Your task to perform on an android device: Clear the shopping cart on newegg.com. Search for "lg ultragear" on newegg.com, select the first entry, and add it to the cart. Image 0: 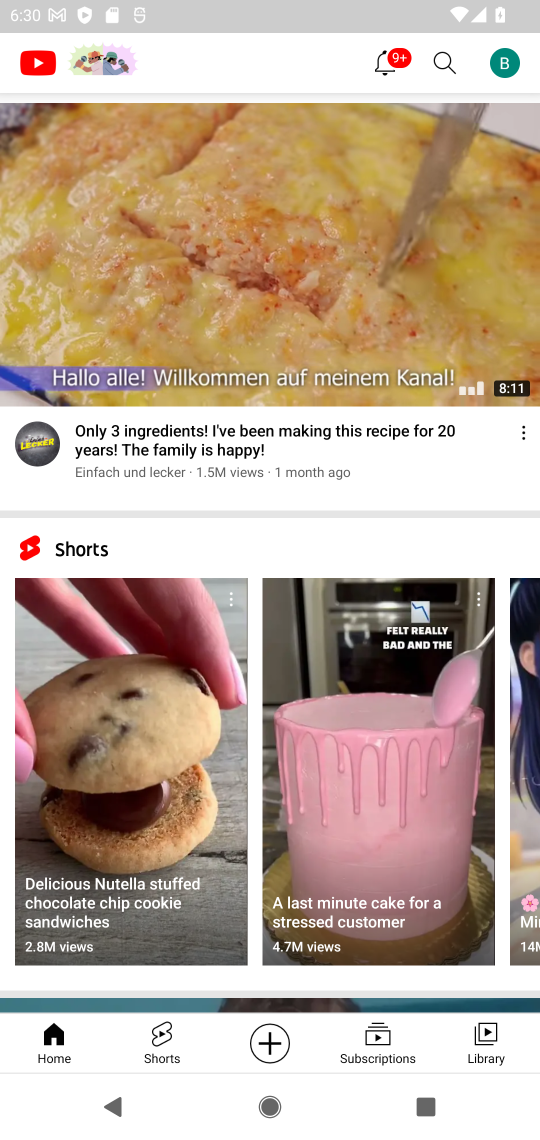
Step 0: press home button
Your task to perform on an android device: Clear the shopping cart on newegg.com. Search for "lg ultragear" on newegg.com, select the first entry, and add it to the cart. Image 1: 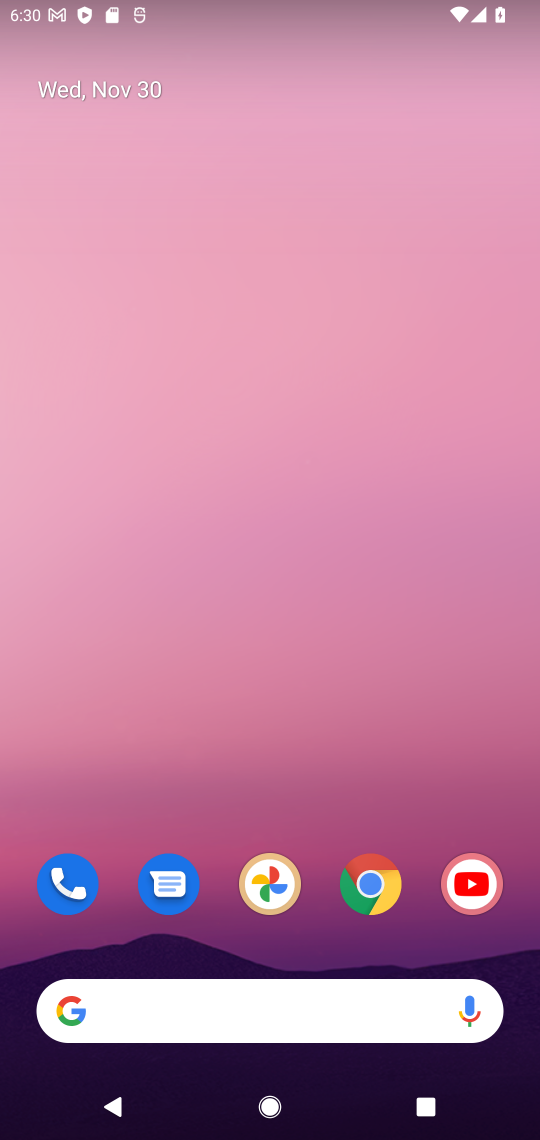
Step 1: click (372, 882)
Your task to perform on an android device: Clear the shopping cart on newegg.com. Search for "lg ultragear" on newegg.com, select the first entry, and add it to the cart. Image 2: 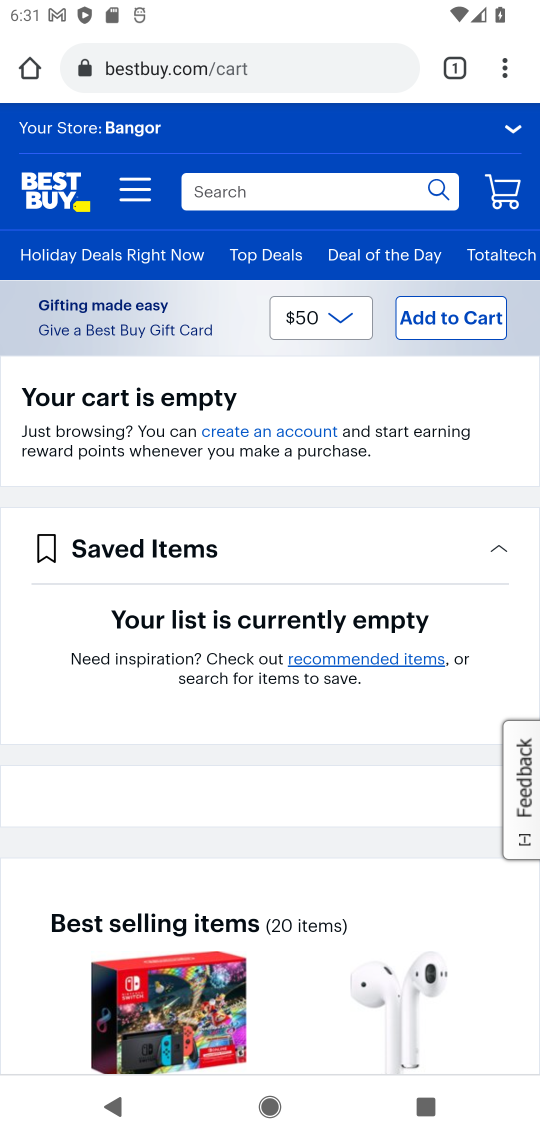
Step 2: click (200, 69)
Your task to perform on an android device: Clear the shopping cart on newegg.com. Search for "lg ultragear" on newegg.com, select the first entry, and add it to the cart. Image 3: 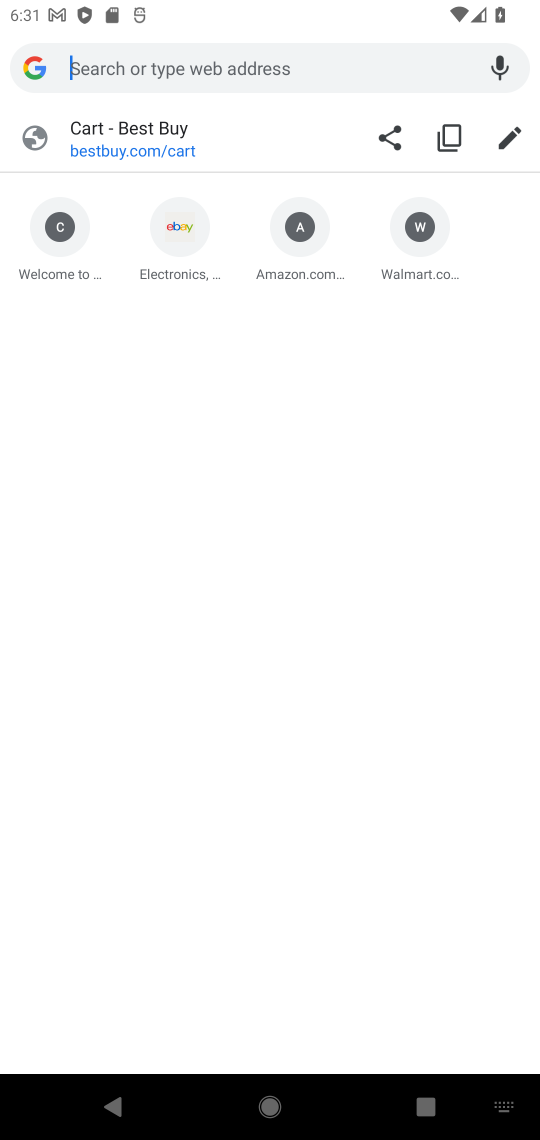
Step 3: type "newegg.com"
Your task to perform on an android device: Clear the shopping cart on newegg.com. Search for "lg ultragear" on newegg.com, select the first entry, and add it to the cart. Image 4: 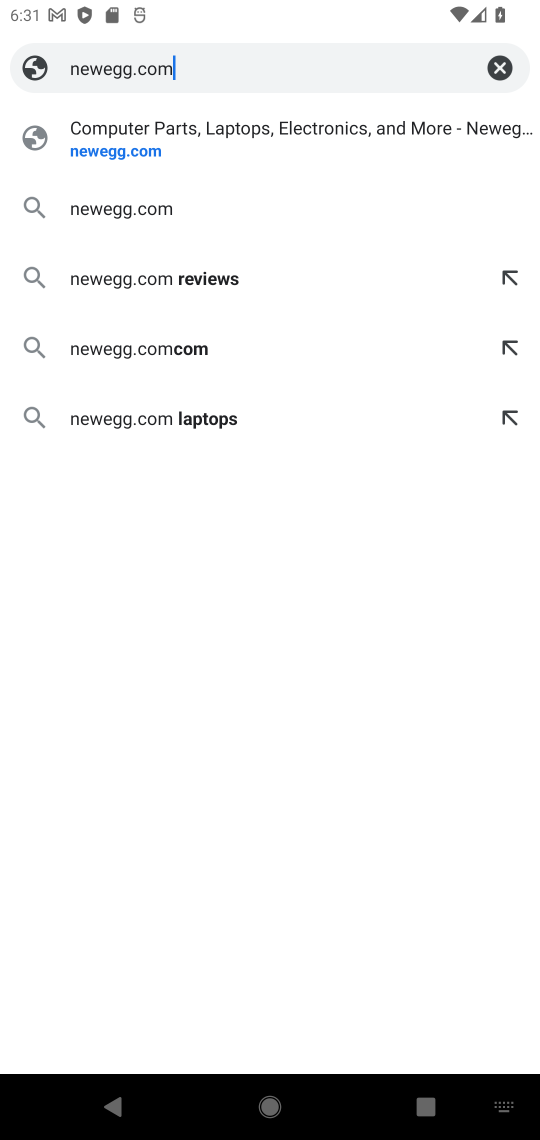
Step 4: click (130, 153)
Your task to perform on an android device: Clear the shopping cart on newegg.com. Search for "lg ultragear" on newegg.com, select the first entry, and add it to the cart. Image 5: 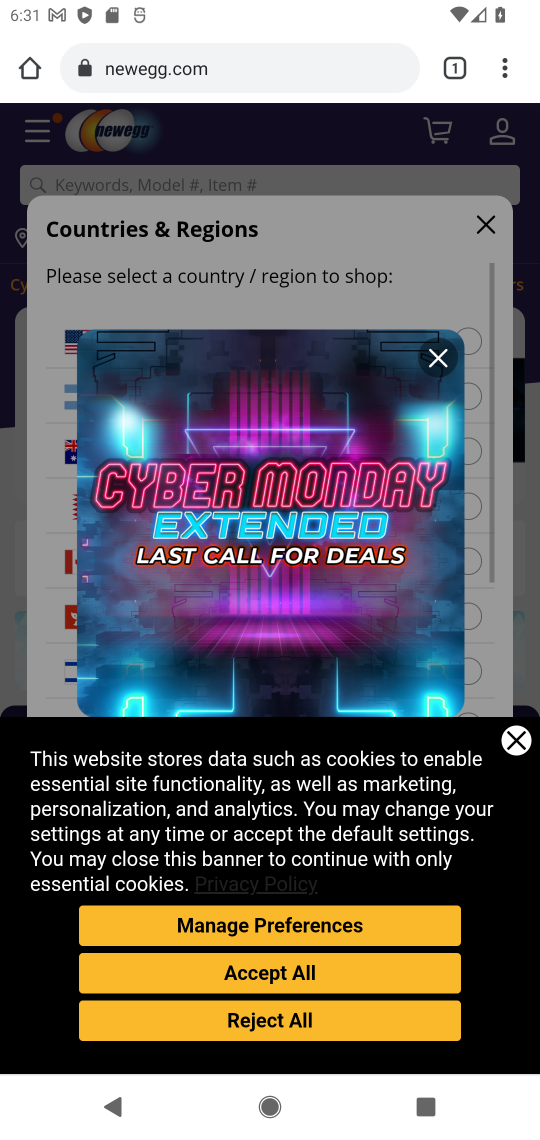
Step 5: click (523, 738)
Your task to perform on an android device: Clear the shopping cart on newegg.com. Search for "lg ultragear" on newegg.com, select the first entry, and add it to the cart. Image 6: 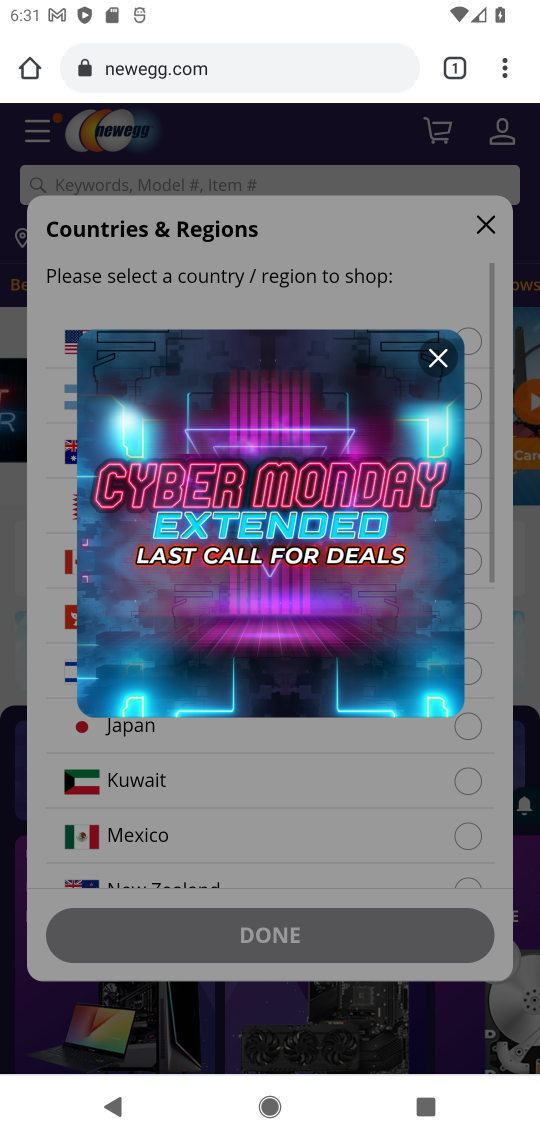
Step 6: click (446, 363)
Your task to perform on an android device: Clear the shopping cart on newegg.com. Search for "lg ultragear" on newegg.com, select the first entry, and add it to the cart. Image 7: 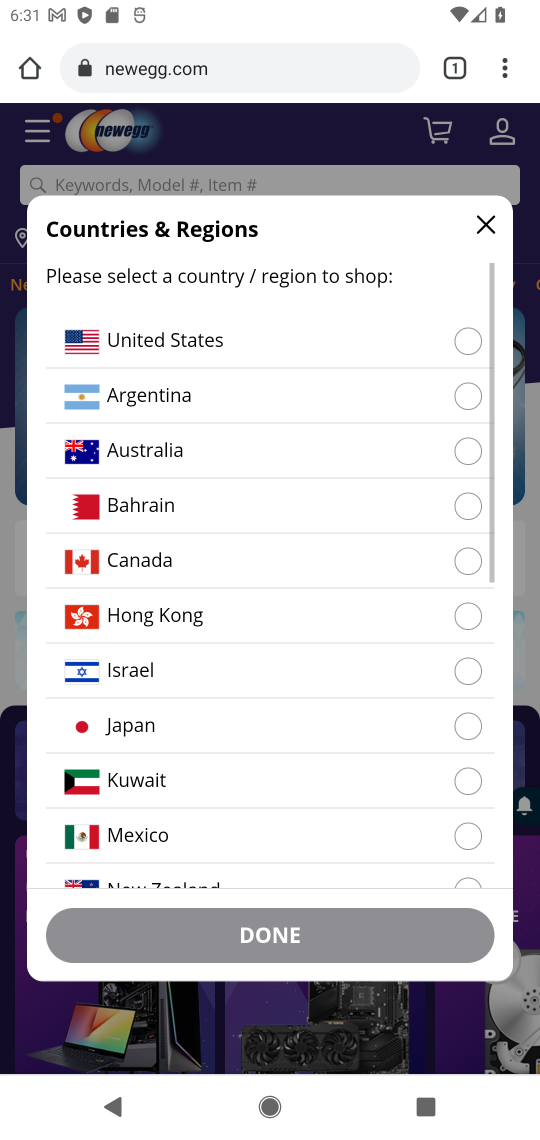
Step 7: click (272, 343)
Your task to perform on an android device: Clear the shopping cart on newegg.com. Search for "lg ultragear" on newegg.com, select the first entry, and add it to the cart. Image 8: 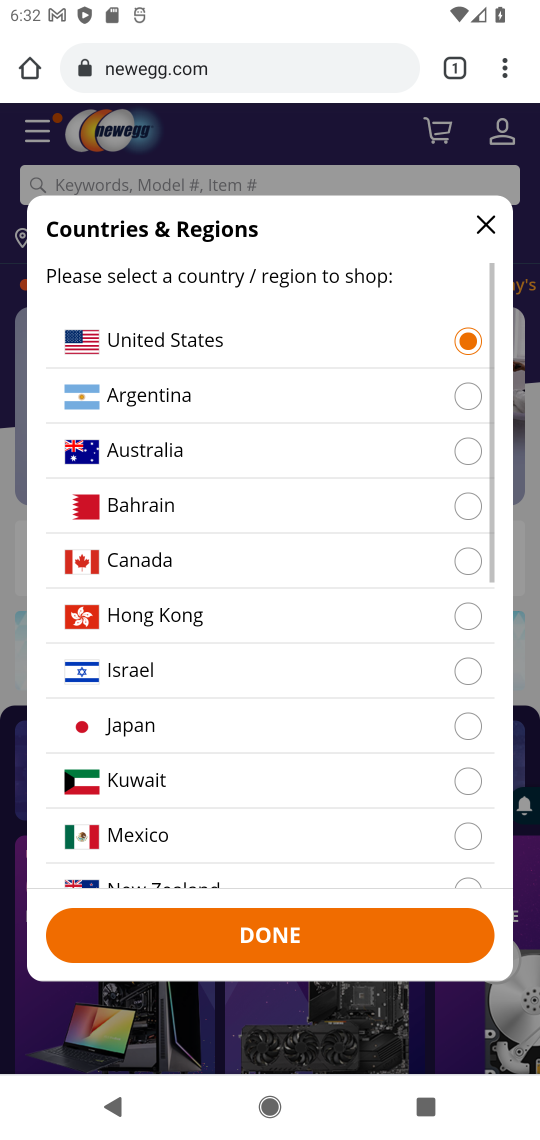
Step 8: click (250, 947)
Your task to perform on an android device: Clear the shopping cart on newegg.com. Search for "lg ultragear" on newegg.com, select the first entry, and add it to the cart. Image 9: 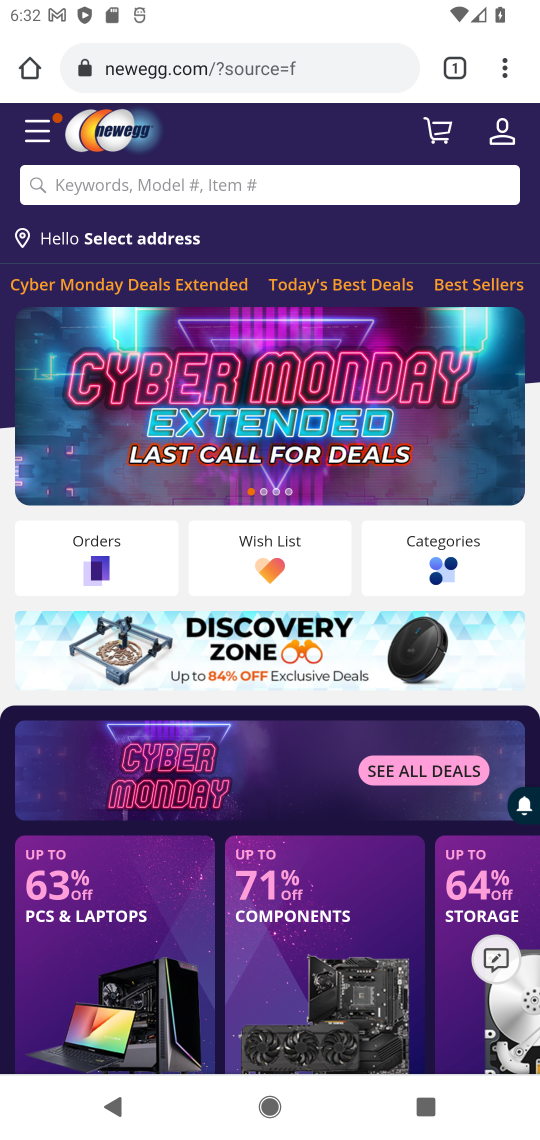
Step 9: click (434, 128)
Your task to perform on an android device: Clear the shopping cart on newegg.com. Search for "lg ultragear" on newegg.com, select the first entry, and add it to the cart. Image 10: 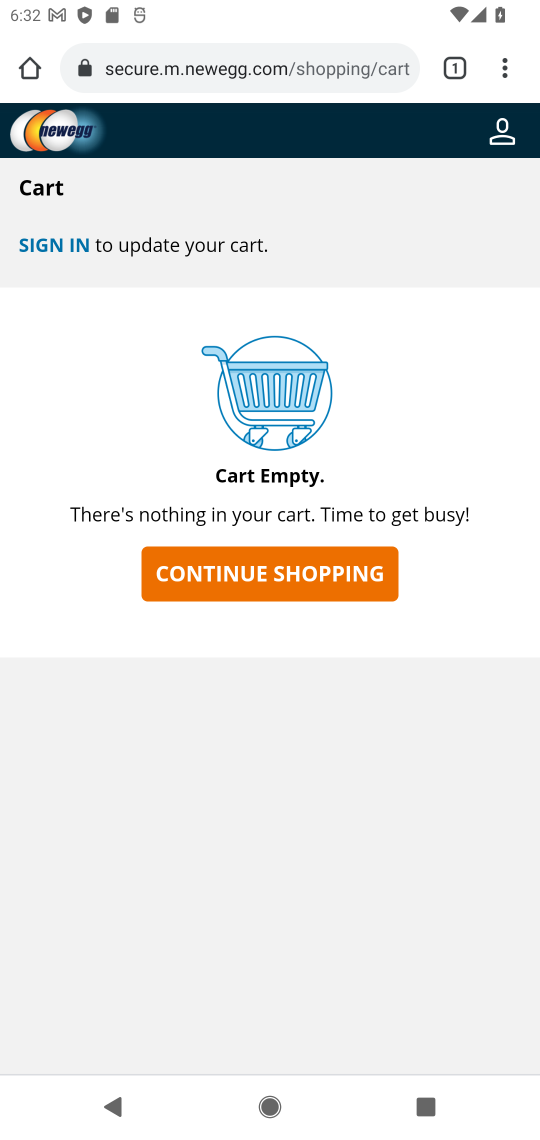
Step 10: click (222, 577)
Your task to perform on an android device: Clear the shopping cart on newegg.com. Search for "lg ultragear" on newegg.com, select the first entry, and add it to the cart. Image 11: 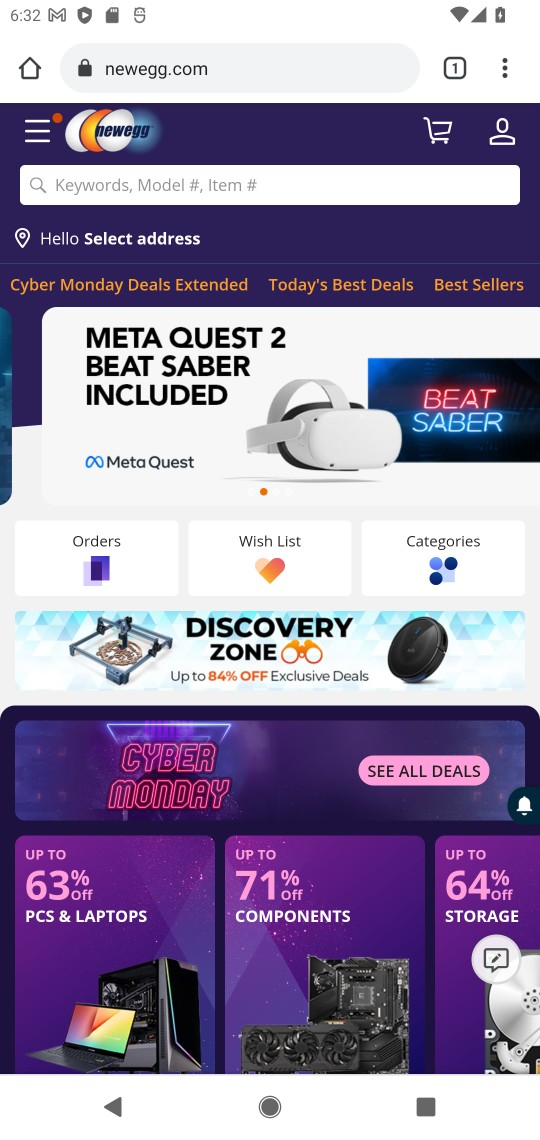
Step 11: click (134, 189)
Your task to perform on an android device: Clear the shopping cart on newegg.com. Search for "lg ultragear" on newegg.com, select the first entry, and add it to the cart. Image 12: 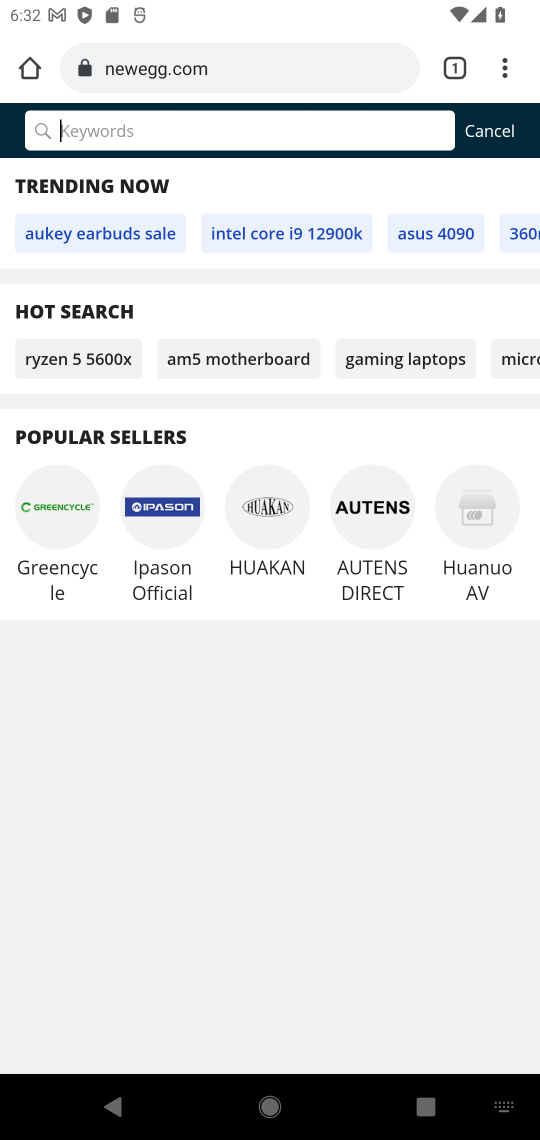
Step 12: type "lg ultragear"
Your task to perform on an android device: Clear the shopping cart on newegg.com. Search for "lg ultragear" on newegg.com, select the first entry, and add it to the cart. Image 13: 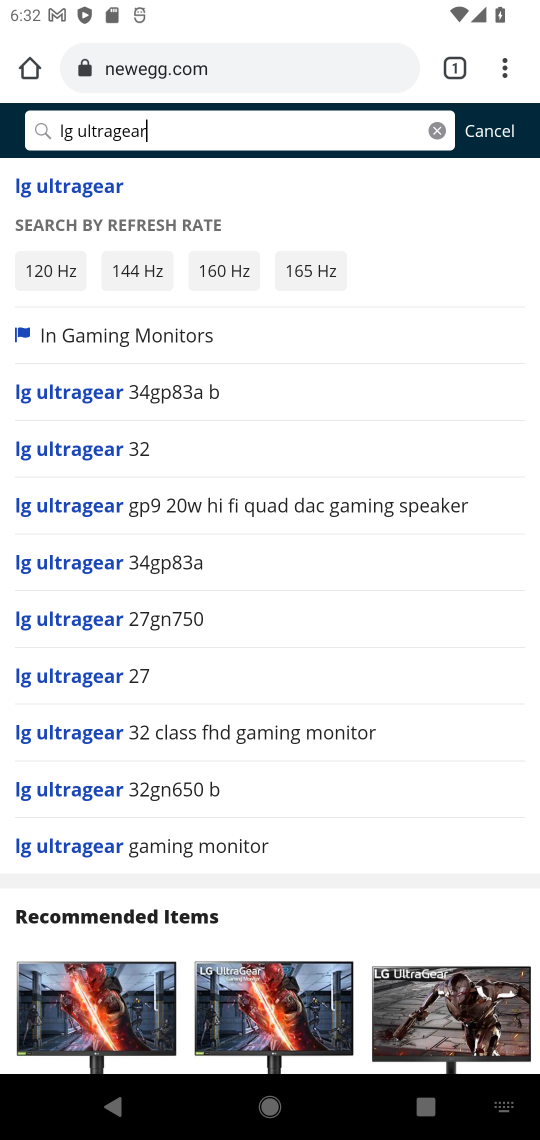
Step 13: click (67, 185)
Your task to perform on an android device: Clear the shopping cart on newegg.com. Search for "lg ultragear" on newegg.com, select the first entry, and add it to the cart. Image 14: 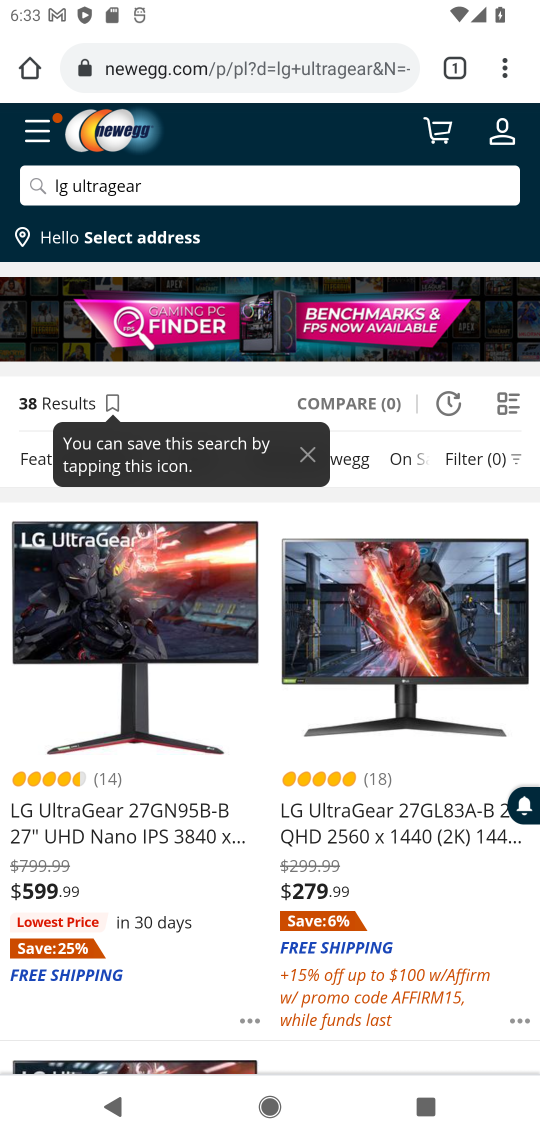
Step 14: click (85, 755)
Your task to perform on an android device: Clear the shopping cart on newegg.com. Search for "lg ultragear" on newegg.com, select the first entry, and add it to the cart. Image 15: 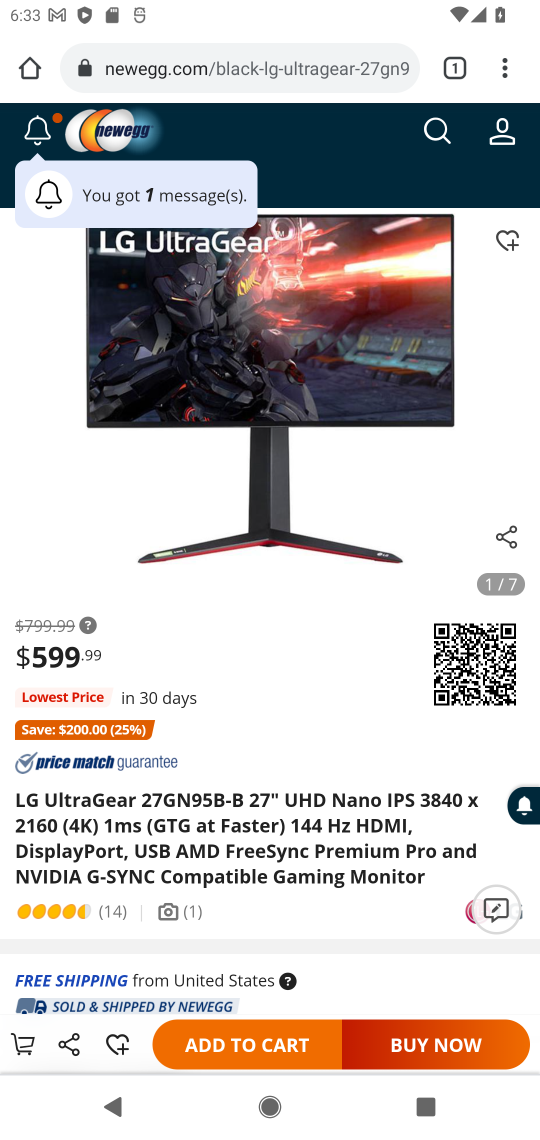
Step 15: click (241, 1043)
Your task to perform on an android device: Clear the shopping cart on newegg.com. Search for "lg ultragear" on newegg.com, select the first entry, and add it to the cart. Image 16: 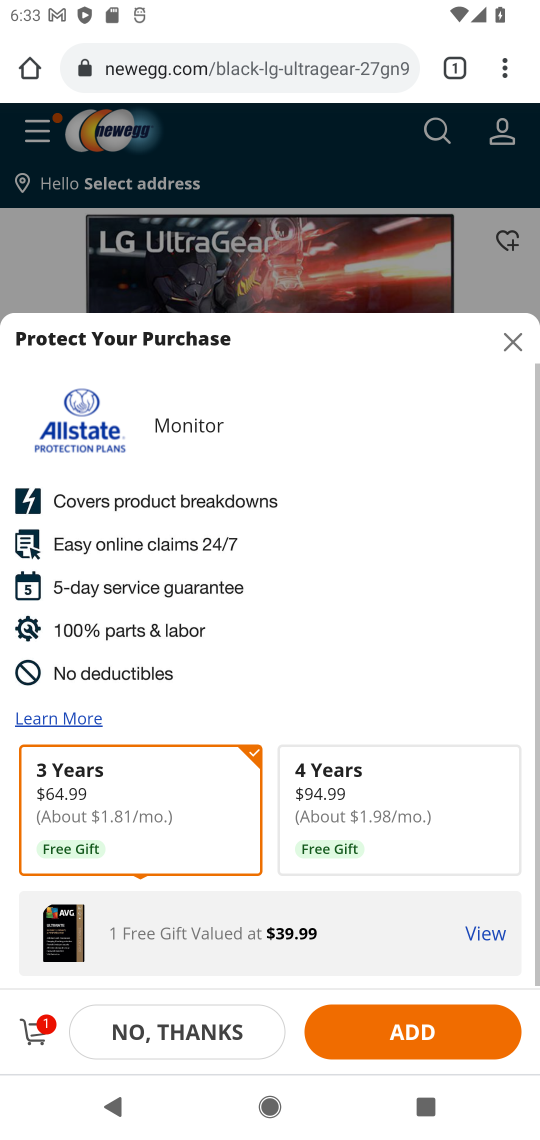
Step 16: task complete